Your task to perform on an android device: Open battery settings Image 0: 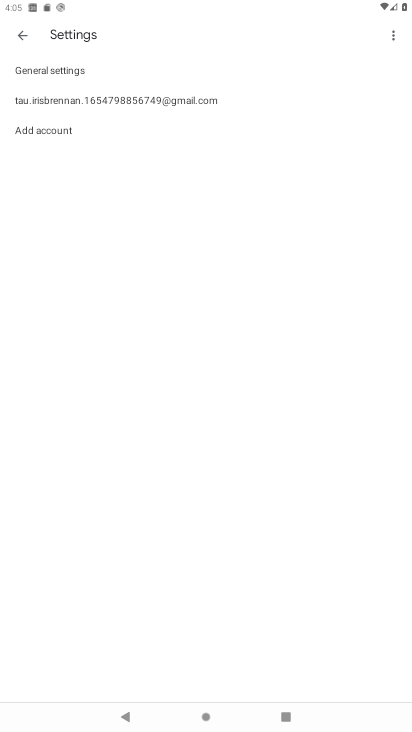
Step 0: press home button
Your task to perform on an android device: Open battery settings Image 1: 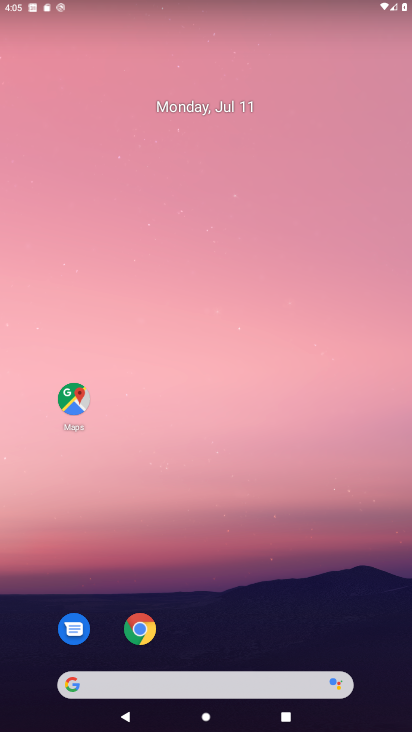
Step 1: drag from (389, 696) to (296, 108)
Your task to perform on an android device: Open battery settings Image 2: 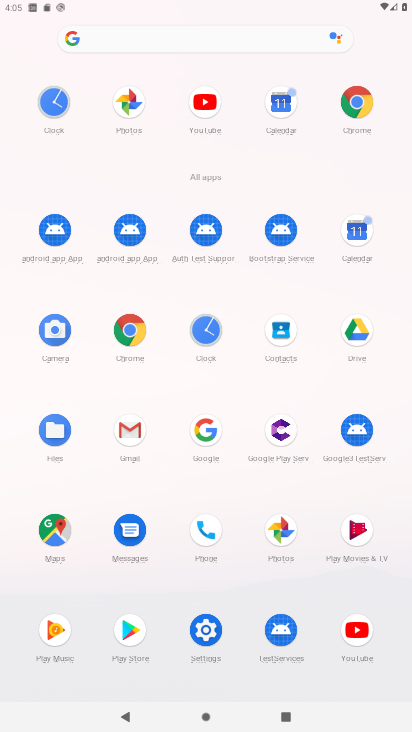
Step 2: click (208, 637)
Your task to perform on an android device: Open battery settings Image 3: 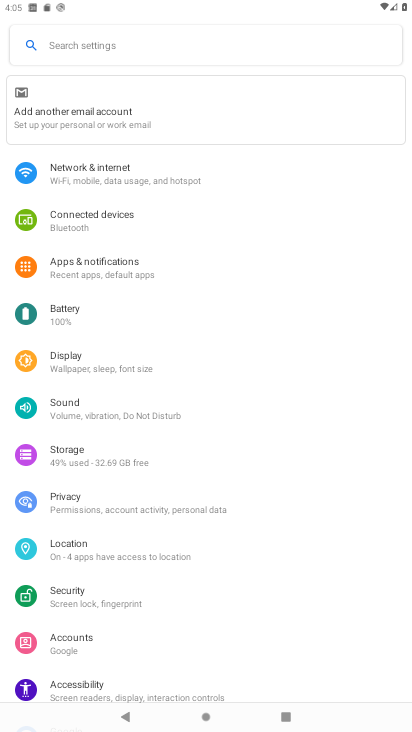
Step 3: click (60, 315)
Your task to perform on an android device: Open battery settings Image 4: 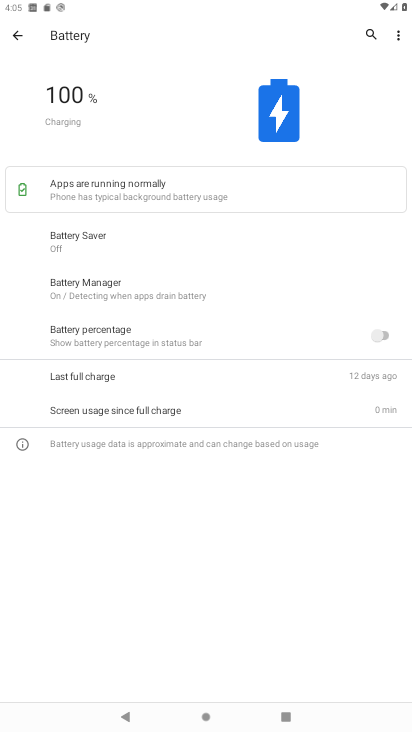
Step 4: task complete